Your task to perform on an android device: toggle location history Image 0: 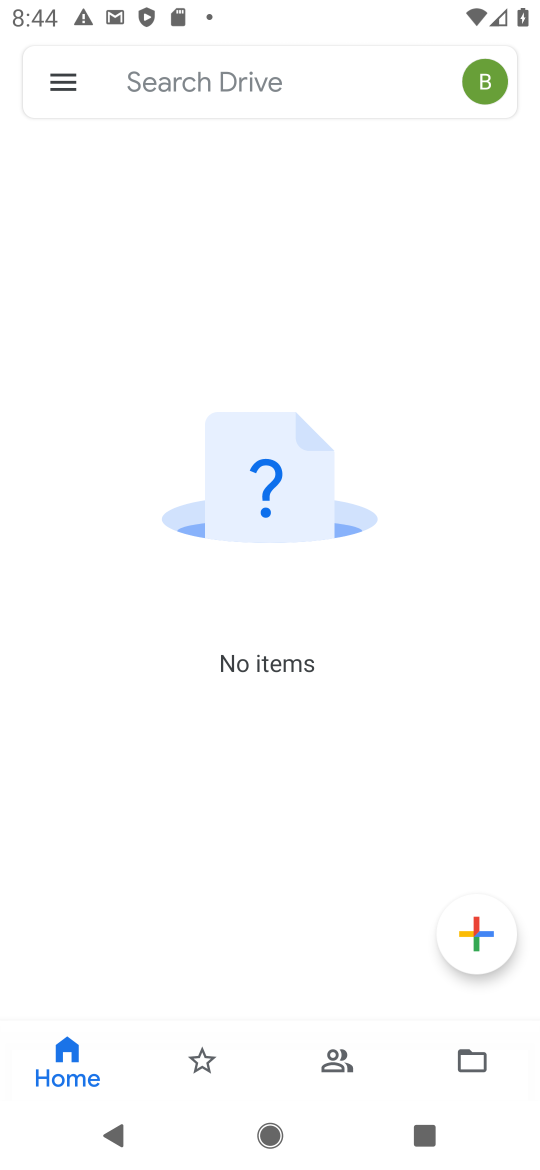
Step 0: press home button
Your task to perform on an android device: toggle location history Image 1: 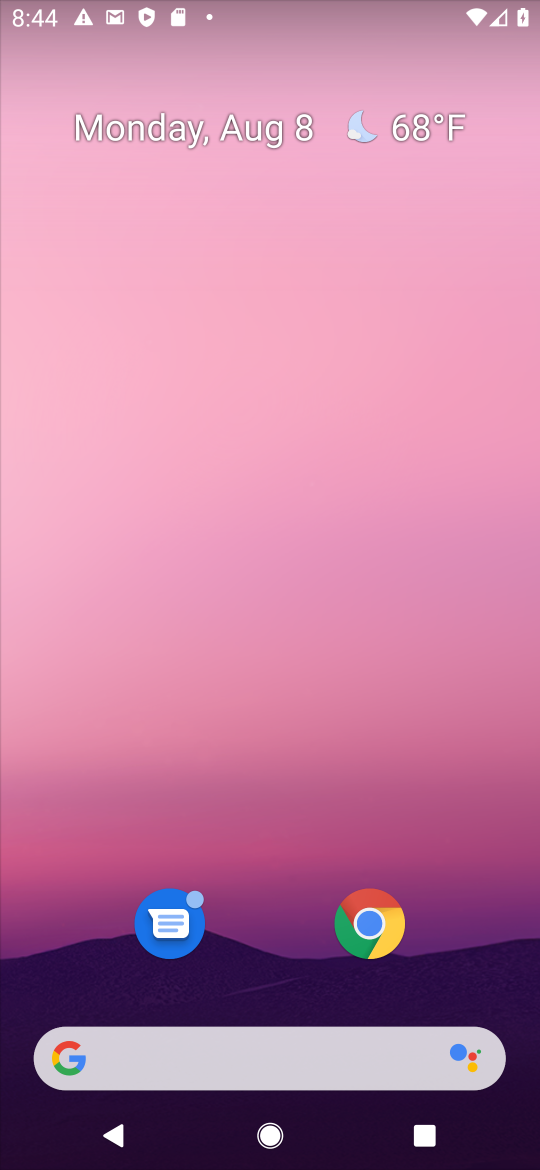
Step 1: drag from (271, 1047) to (325, 412)
Your task to perform on an android device: toggle location history Image 2: 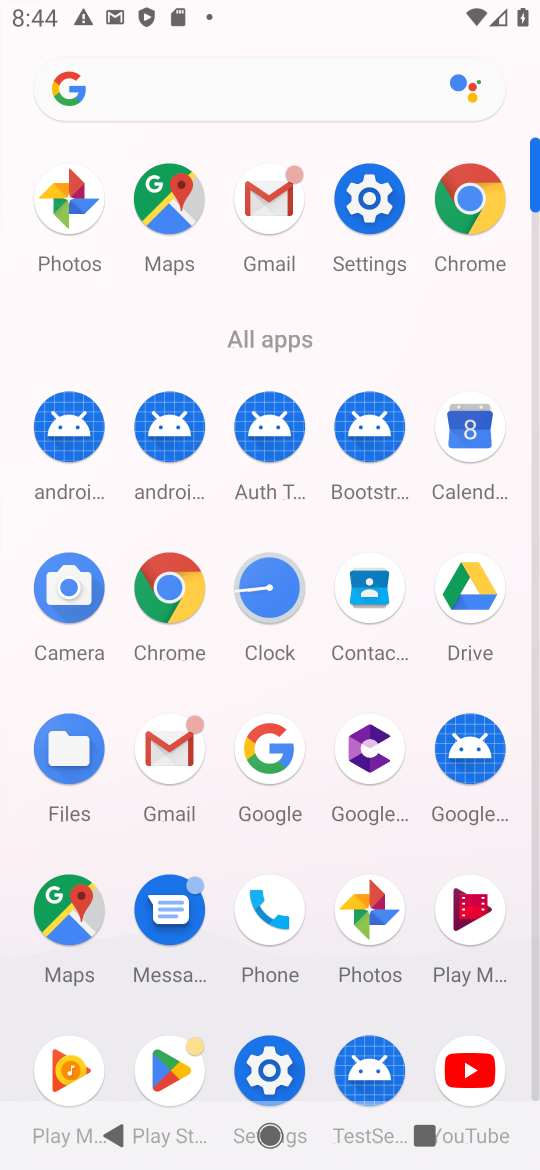
Step 2: drag from (177, 184) to (154, 678)
Your task to perform on an android device: toggle location history Image 3: 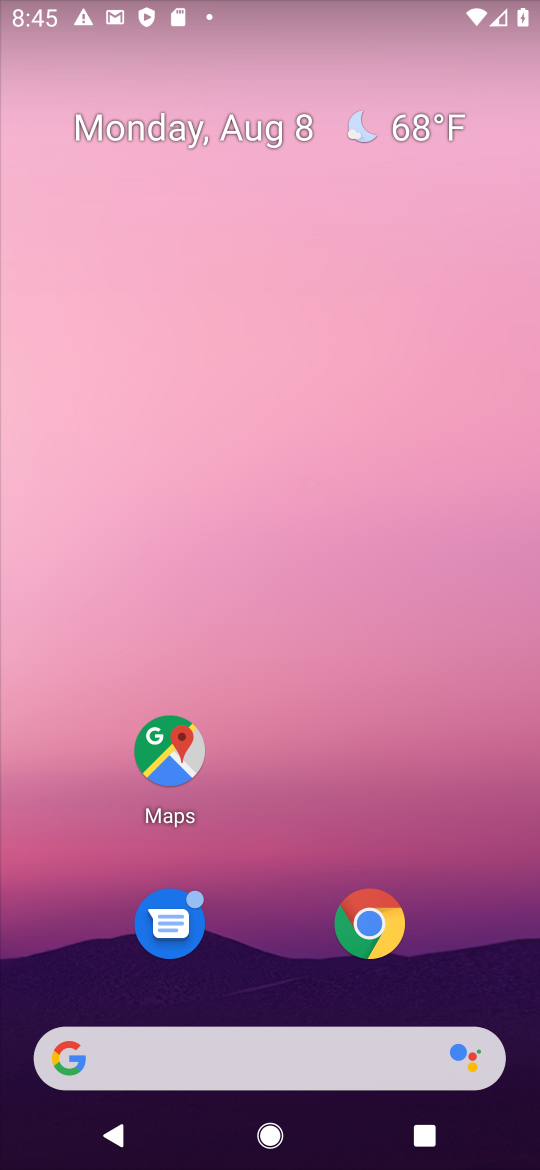
Step 3: click (179, 751)
Your task to perform on an android device: toggle location history Image 4: 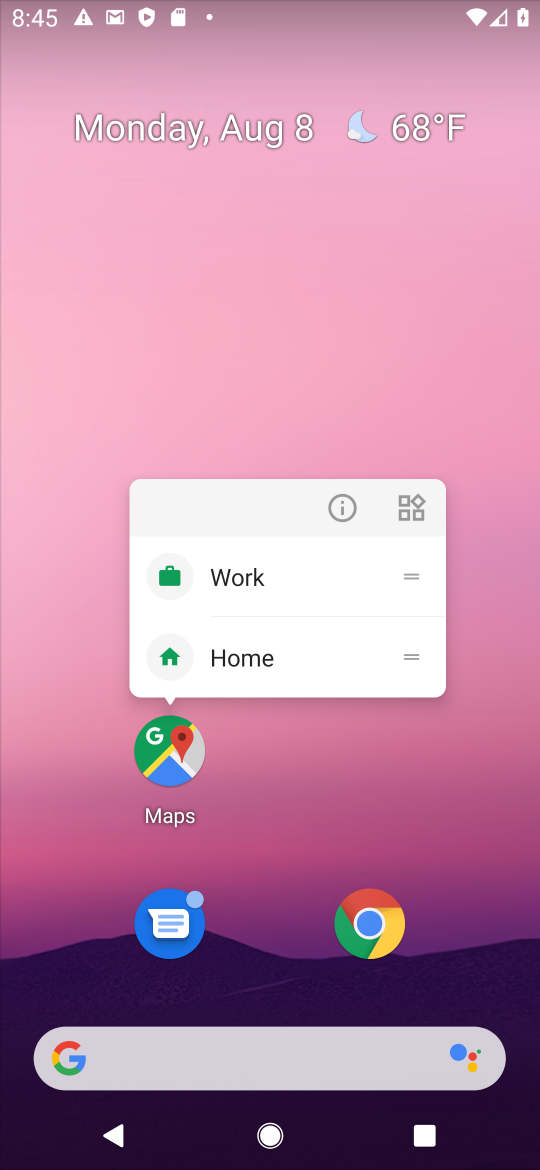
Step 4: click (159, 745)
Your task to perform on an android device: toggle location history Image 5: 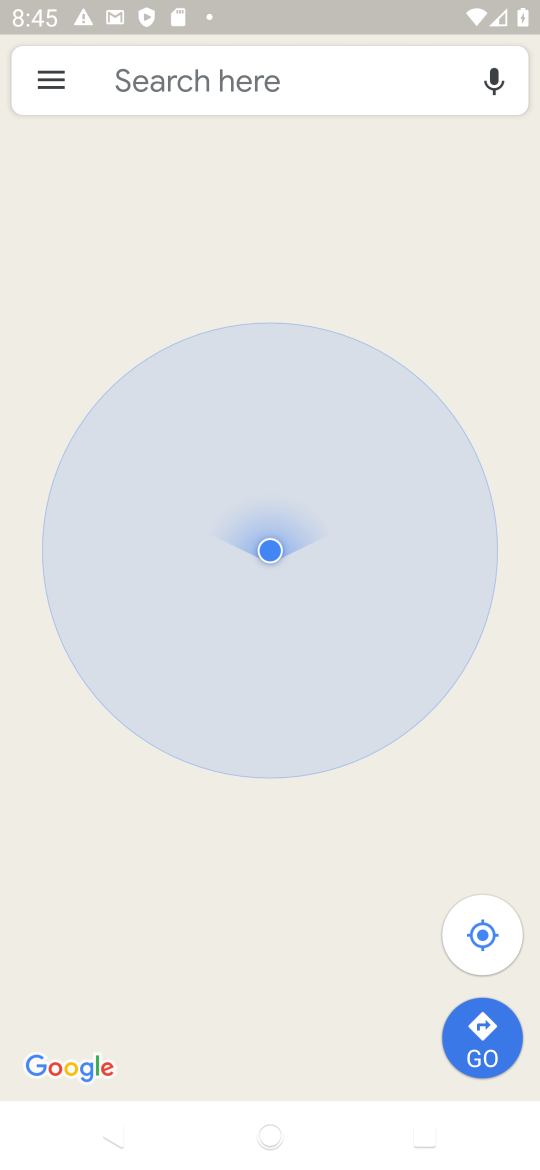
Step 5: click (53, 77)
Your task to perform on an android device: toggle location history Image 6: 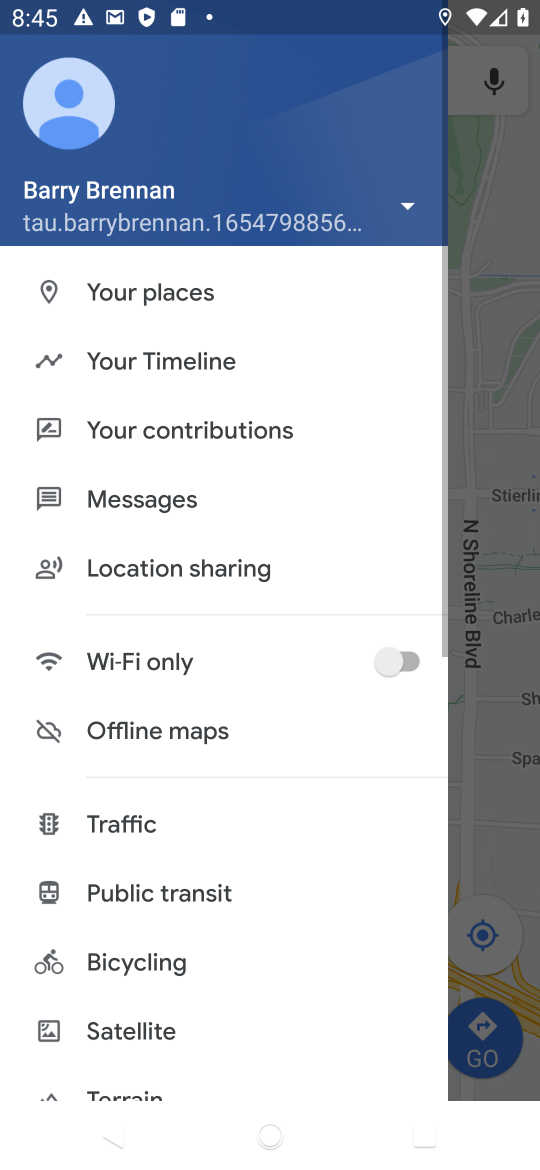
Step 6: click (197, 355)
Your task to perform on an android device: toggle location history Image 7: 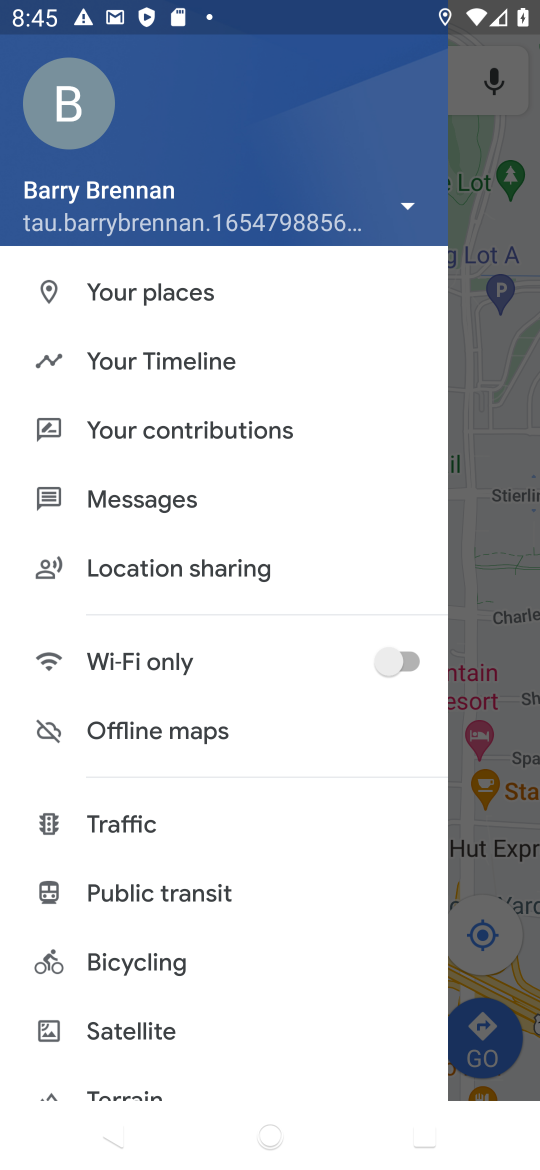
Step 7: click (205, 356)
Your task to perform on an android device: toggle location history Image 8: 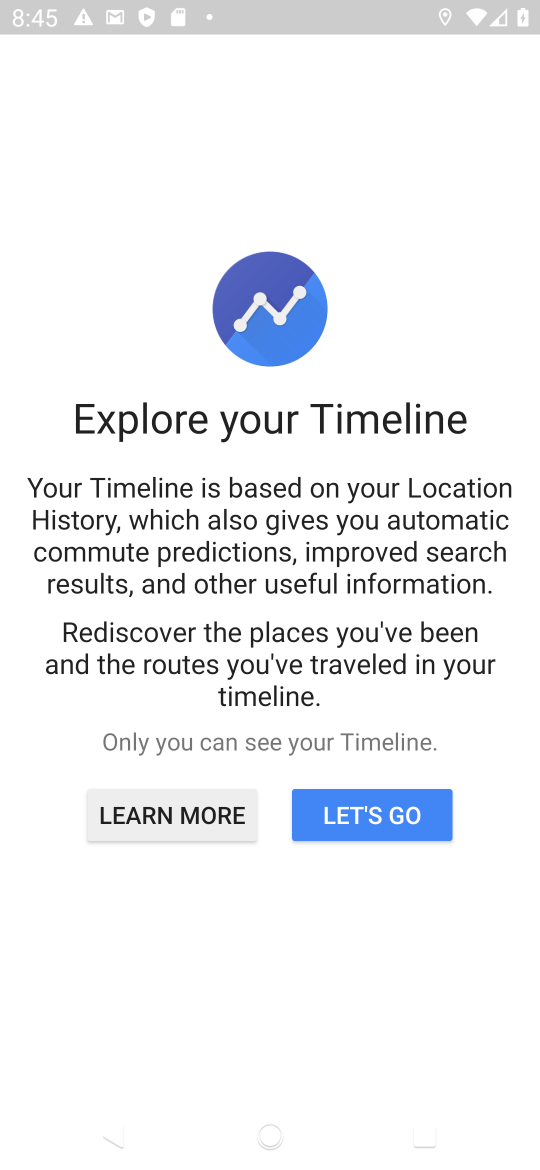
Step 8: click (373, 812)
Your task to perform on an android device: toggle location history Image 9: 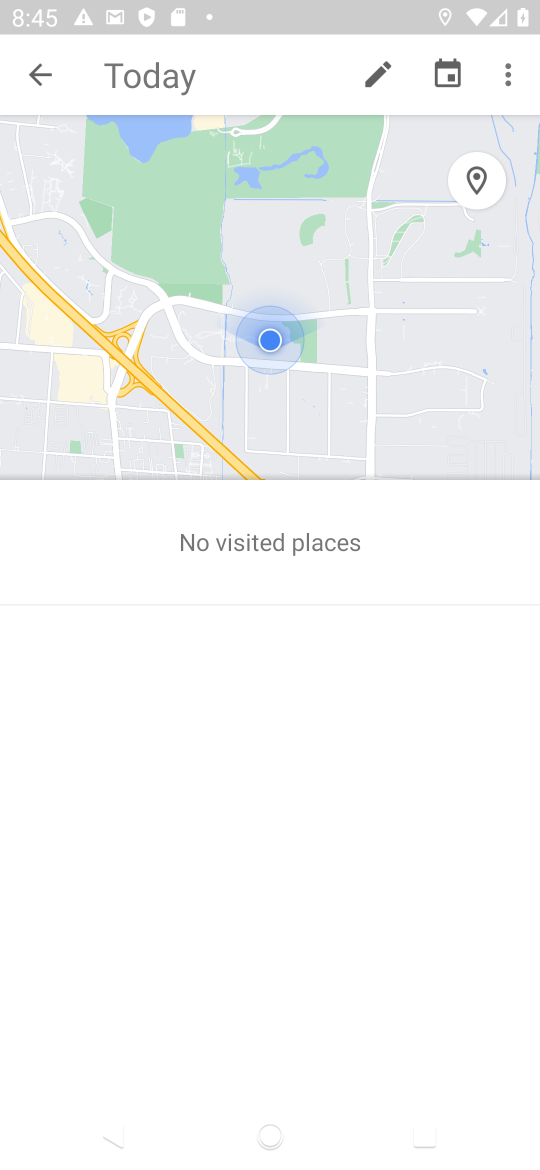
Step 9: click (512, 62)
Your task to perform on an android device: toggle location history Image 10: 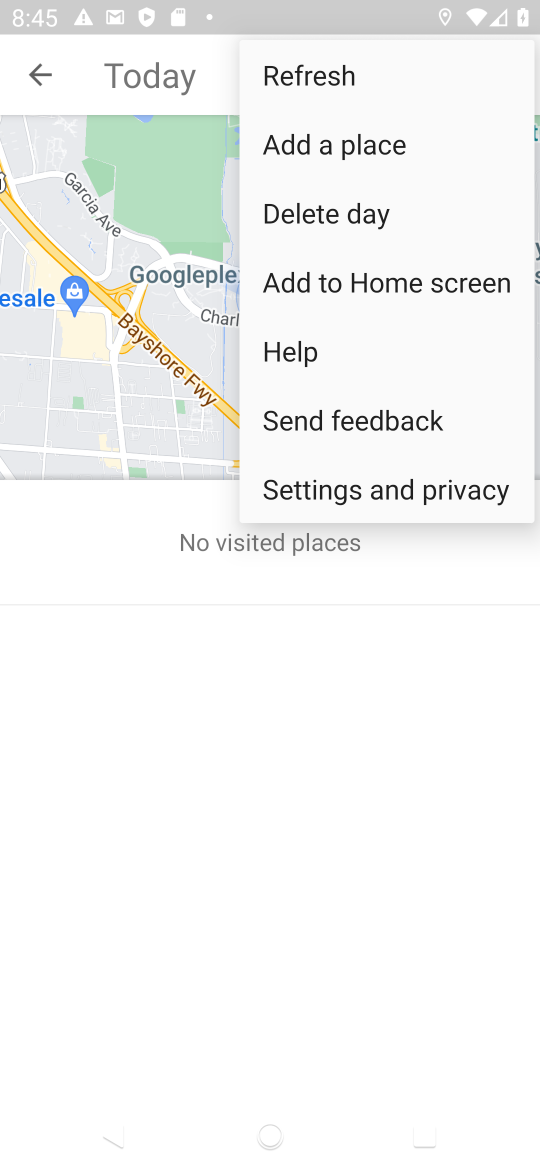
Step 10: click (345, 492)
Your task to perform on an android device: toggle location history Image 11: 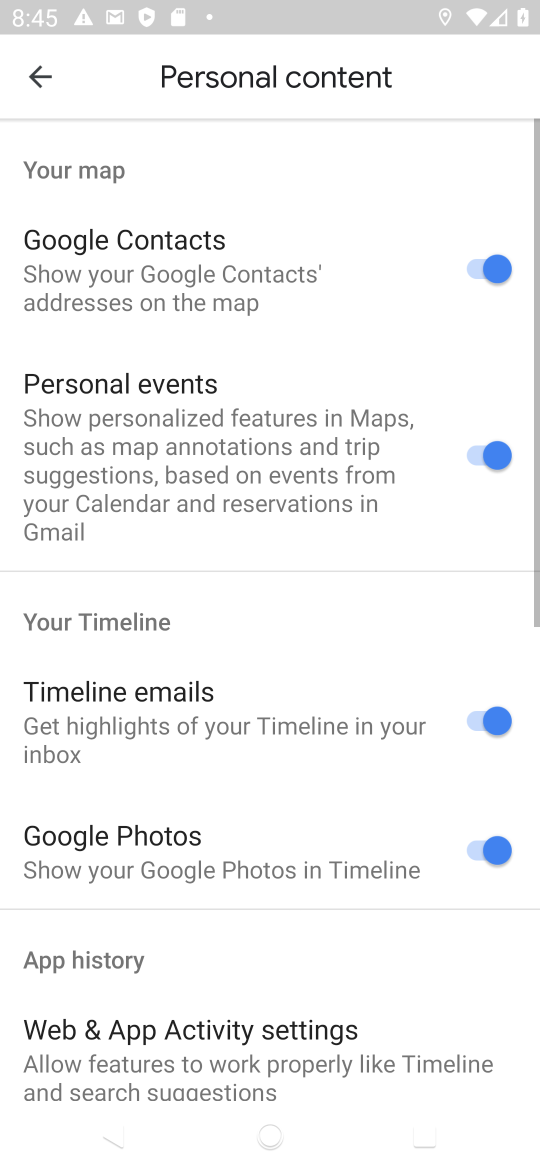
Step 11: drag from (252, 944) to (348, 51)
Your task to perform on an android device: toggle location history Image 12: 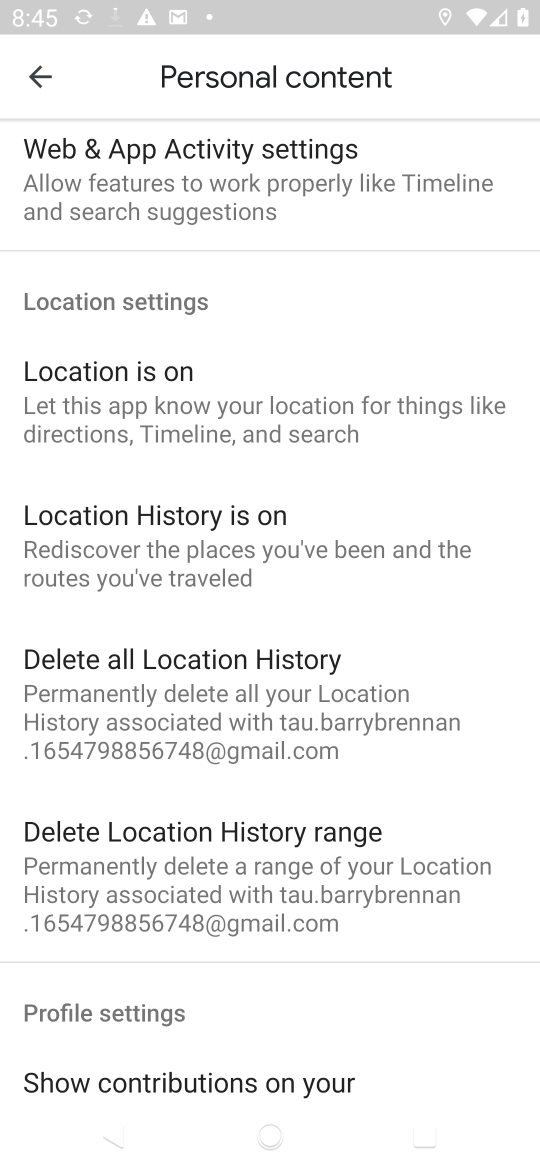
Step 12: click (224, 532)
Your task to perform on an android device: toggle location history Image 13: 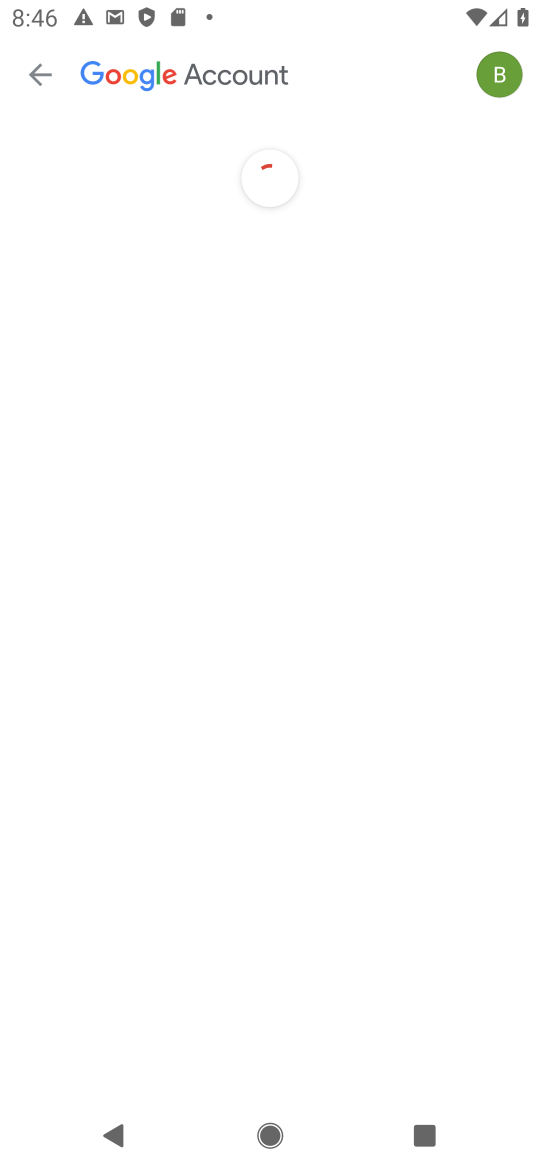
Step 13: drag from (381, 934) to (415, 161)
Your task to perform on an android device: toggle location history Image 14: 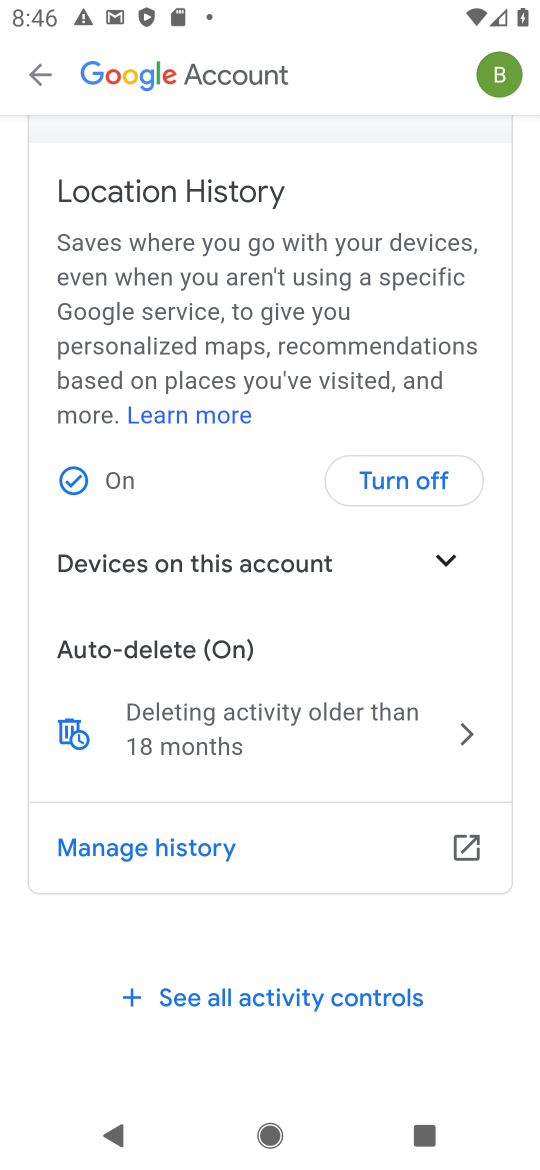
Step 14: click (428, 474)
Your task to perform on an android device: toggle location history Image 15: 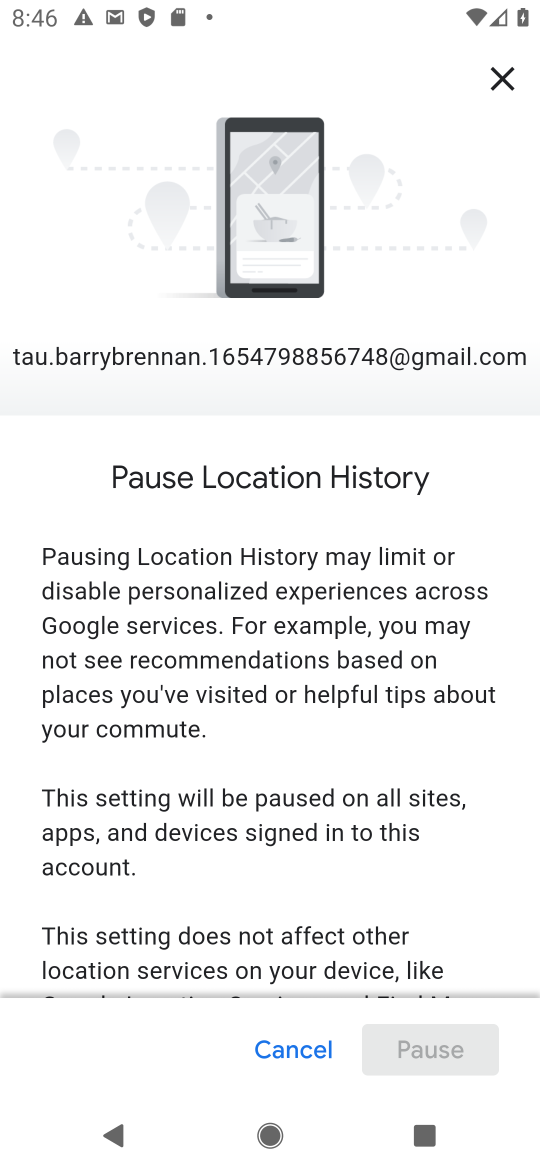
Step 15: drag from (303, 877) to (528, 108)
Your task to perform on an android device: toggle location history Image 16: 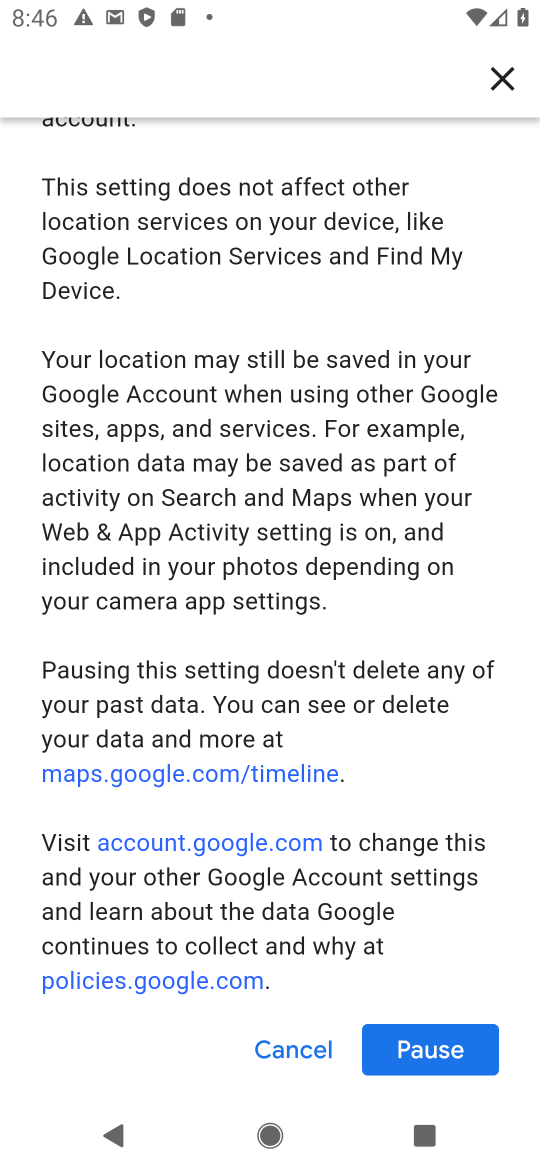
Step 16: click (433, 1060)
Your task to perform on an android device: toggle location history Image 17: 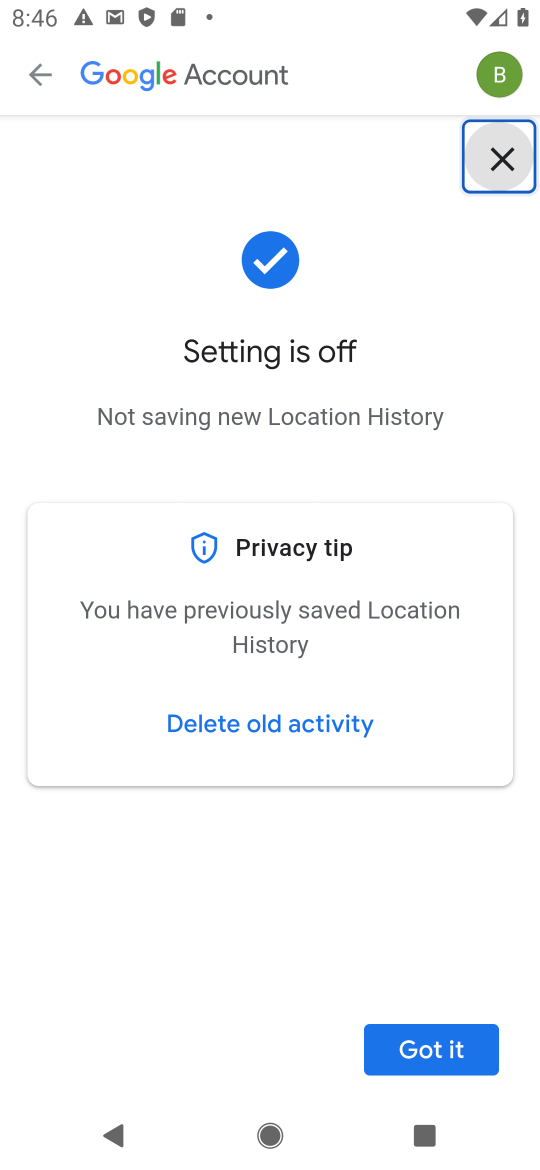
Step 17: click (432, 1029)
Your task to perform on an android device: toggle location history Image 18: 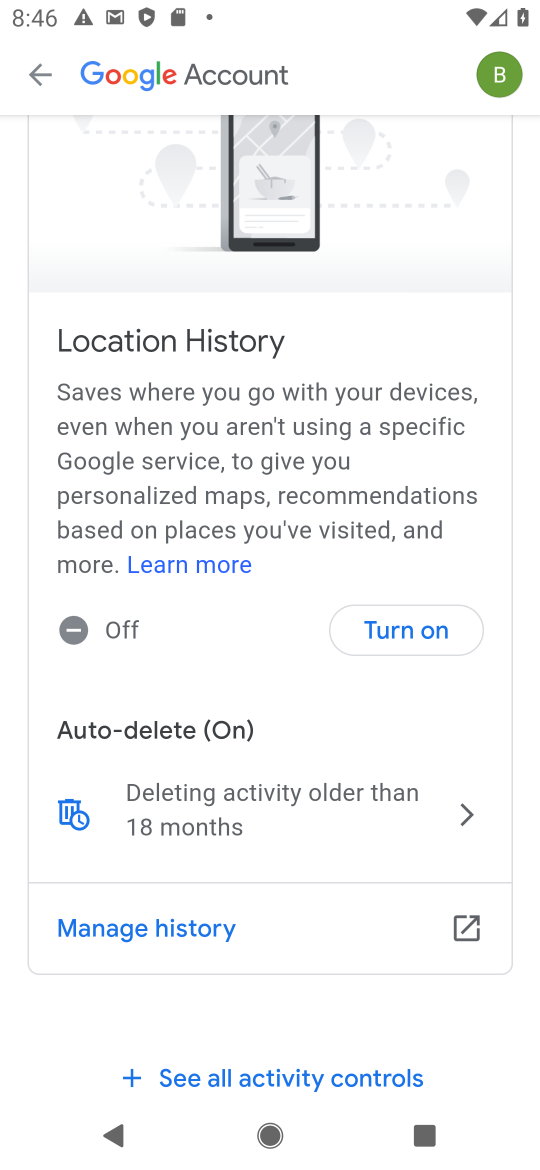
Step 18: task complete